Your task to perform on an android device: toggle translation in the chrome app Image 0: 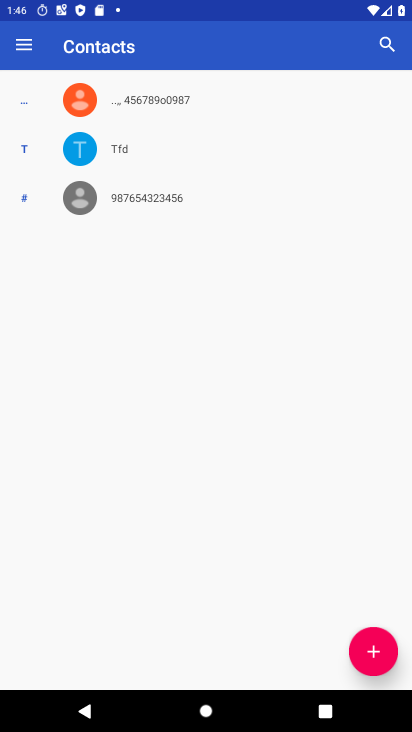
Step 0: press home button
Your task to perform on an android device: toggle translation in the chrome app Image 1: 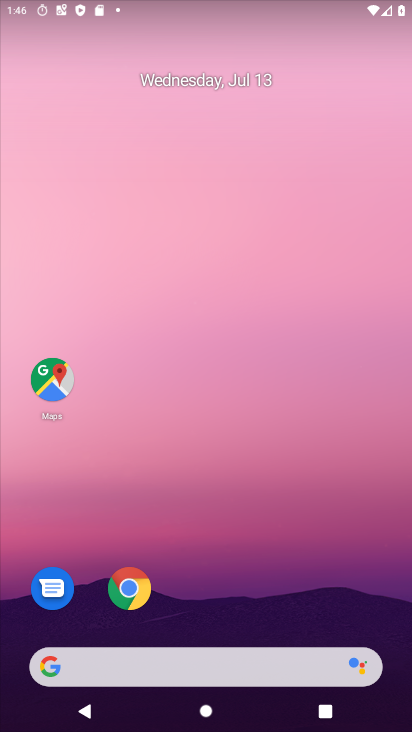
Step 1: click (145, 582)
Your task to perform on an android device: toggle translation in the chrome app Image 2: 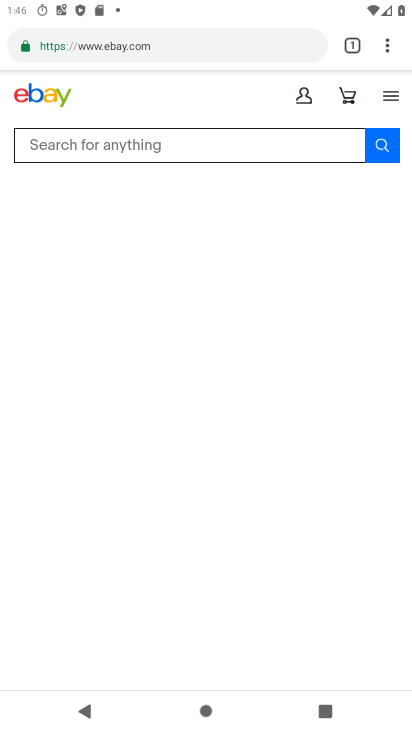
Step 2: click (390, 43)
Your task to perform on an android device: toggle translation in the chrome app Image 3: 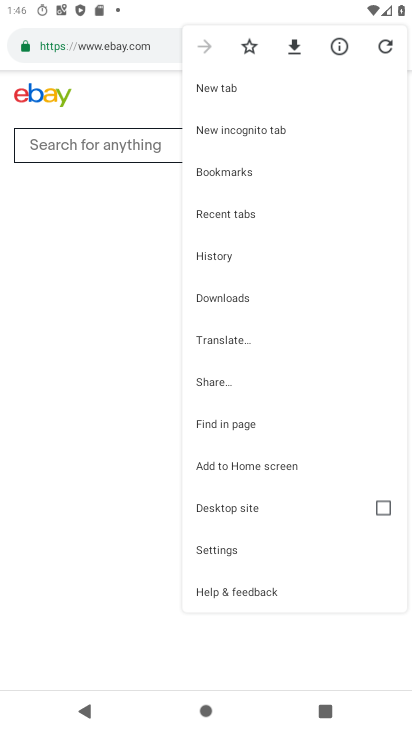
Step 3: click (220, 543)
Your task to perform on an android device: toggle translation in the chrome app Image 4: 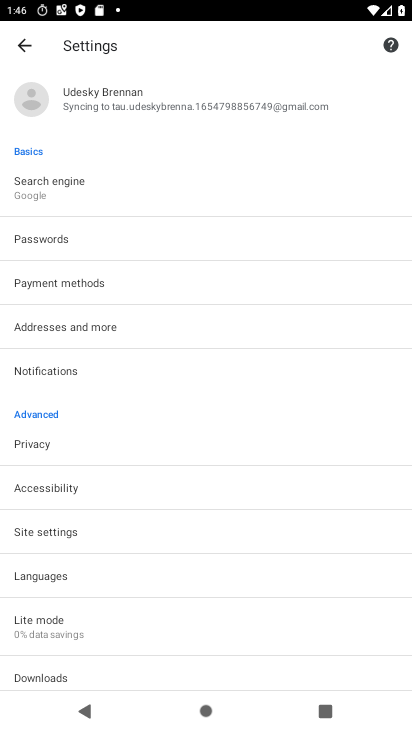
Step 4: click (81, 589)
Your task to perform on an android device: toggle translation in the chrome app Image 5: 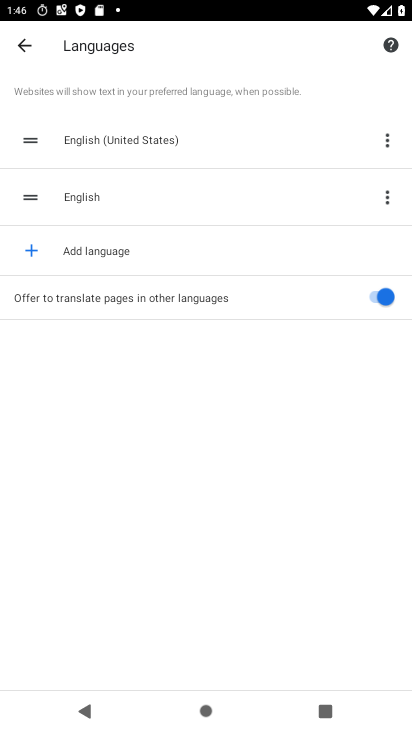
Step 5: click (388, 296)
Your task to perform on an android device: toggle translation in the chrome app Image 6: 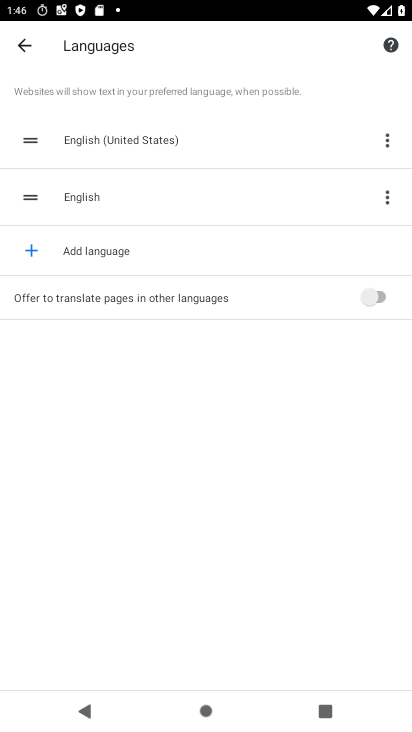
Step 6: task complete